Your task to perform on an android device: Open sound settings Image 0: 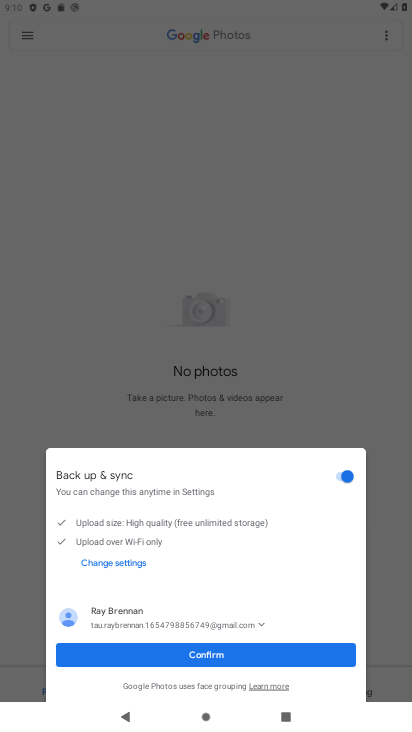
Step 0: press home button
Your task to perform on an android device: Open sound settings Image 1: 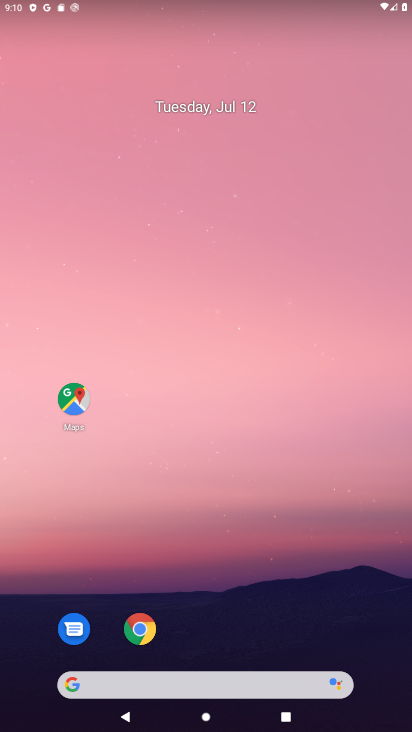
Step 1: drag from (378, 632) to (288, 37)
Your task to perform on an android device: Open sound settings Image 2: 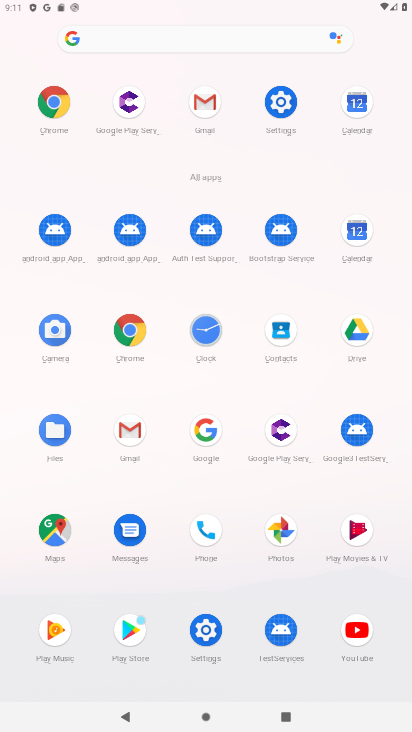
Step 2: click (281, 105)
Your task to perform on an android device: Open sound settings Image 3: 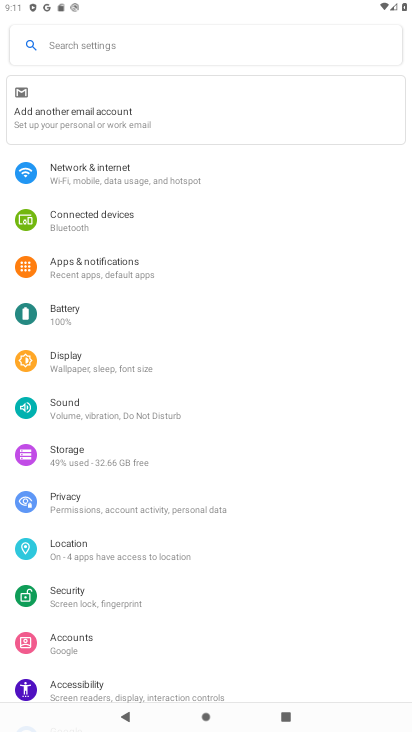
Step 3: click (130, 415)
Your task to perform on an android device: Open sound settings Image 4: 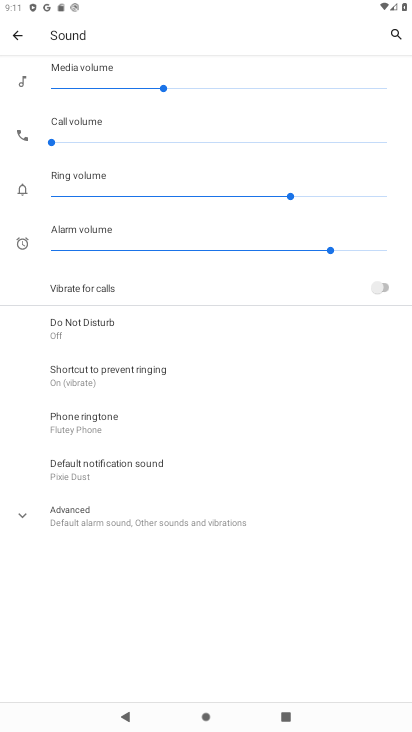
Step 4: task complete